Your task to perform on an android device: search for starred emails in the gmail app Image 0: 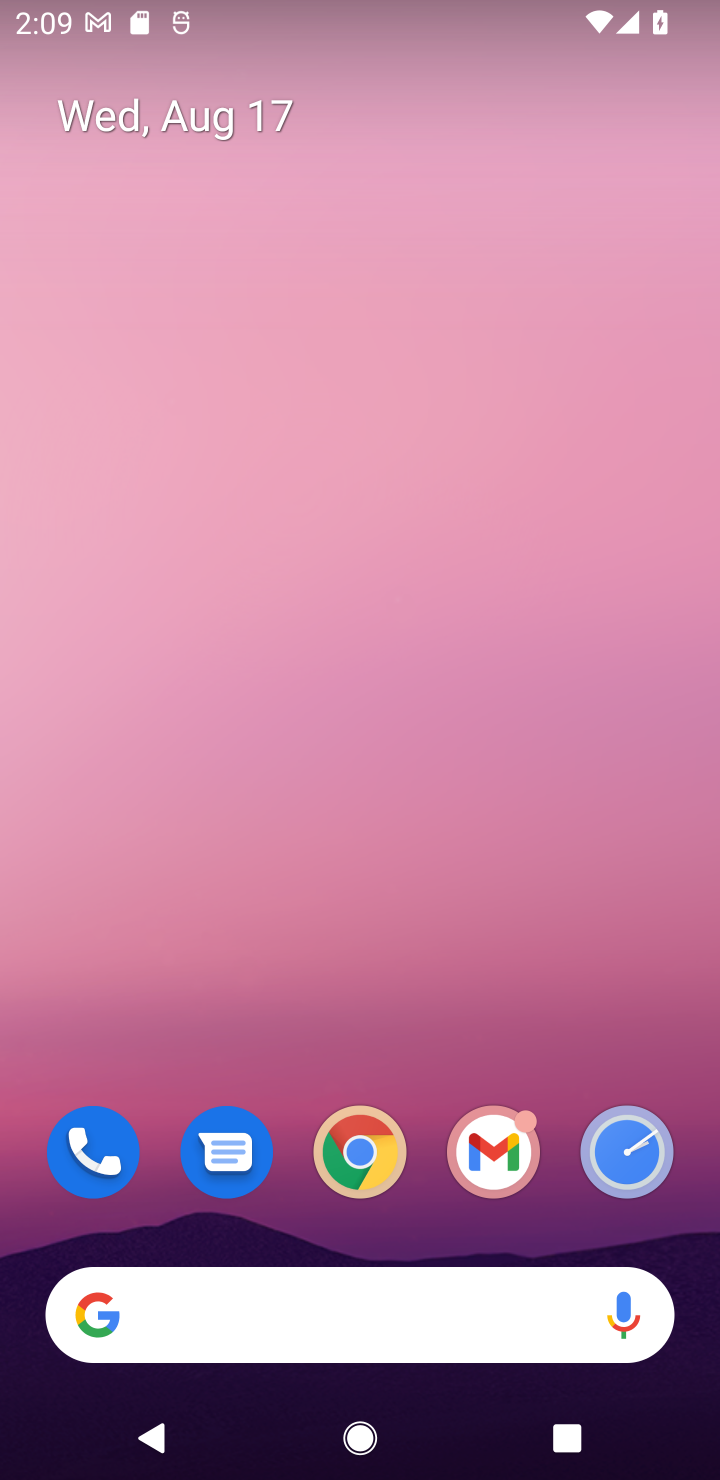
Step 0: drag from (574, 1214) to (260, 39)
Your task to perform on an android device: search for starred emails in the gmail app Image 1: 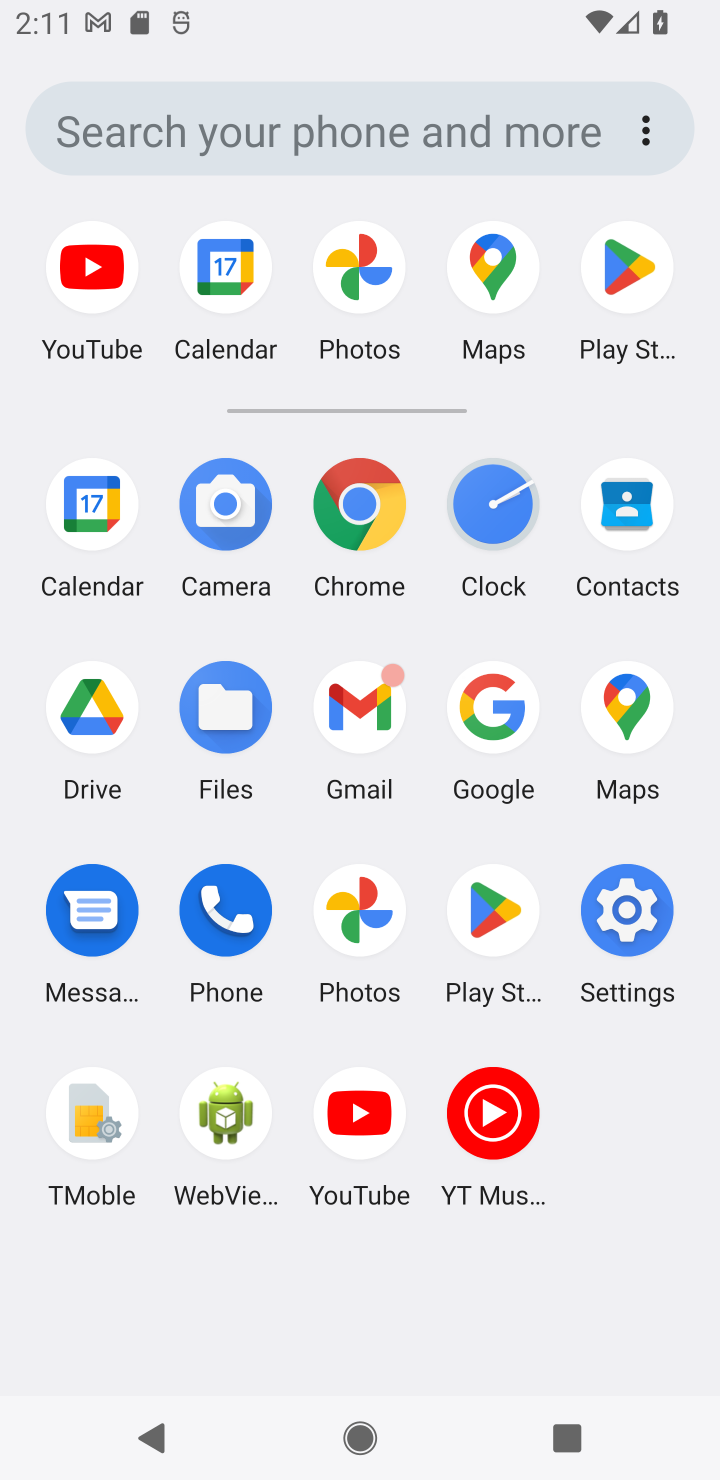
Step 1: click (350, 673)
Your task to perform on an android device: search for starred emails in the gmail app Image 2: 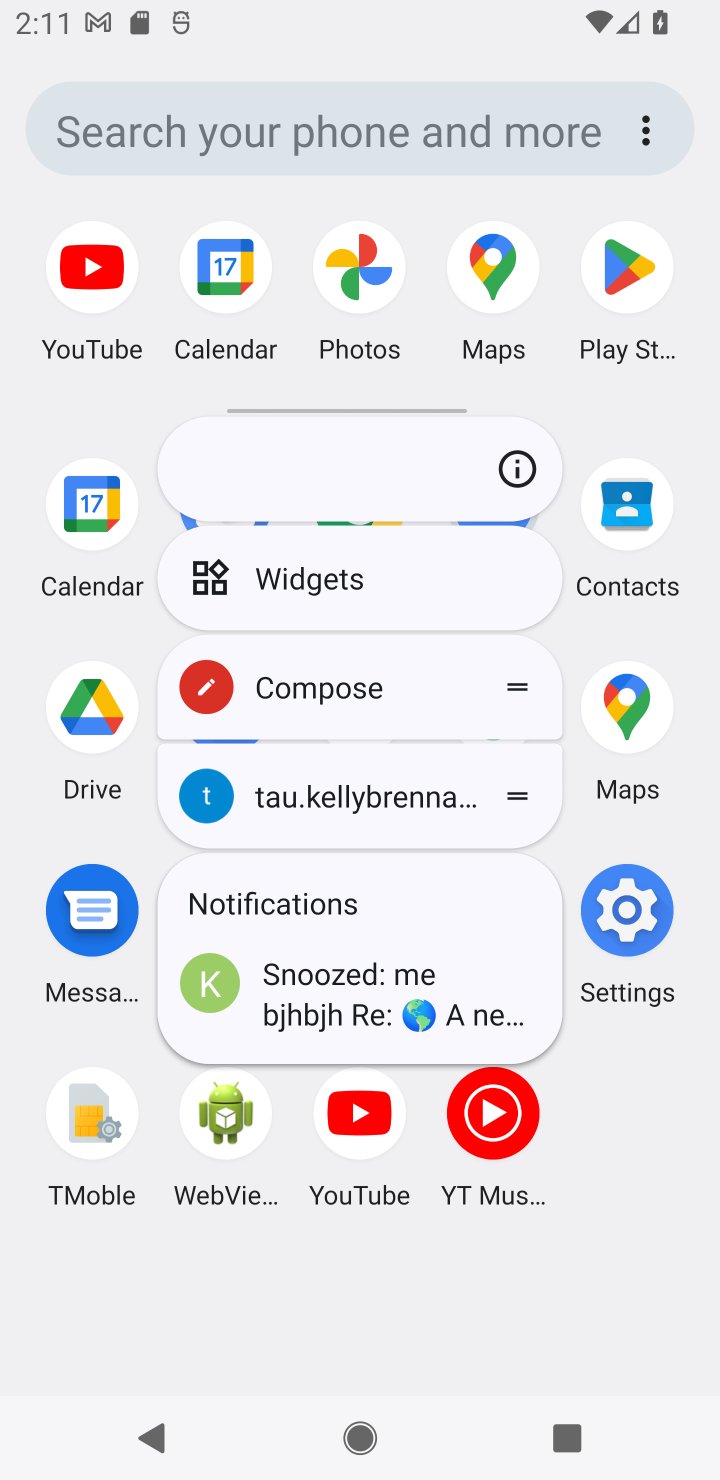
Step 2: click (665, 1219)
Your task to perform on an android device: search for starred emails in the gmail app Image 3: 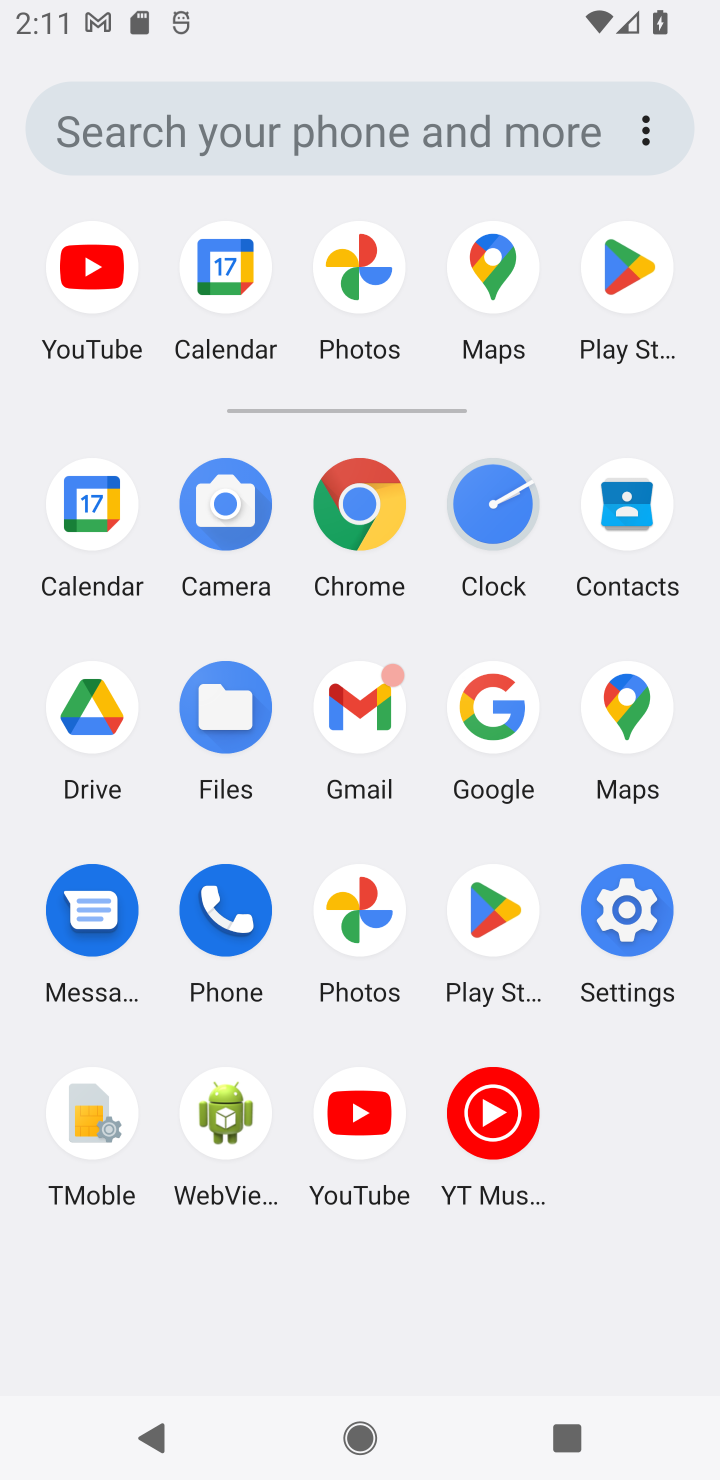
Step 3: click (358, 716)
Your task to perform on an android device: search for starred emails in the gmail app Image 4: 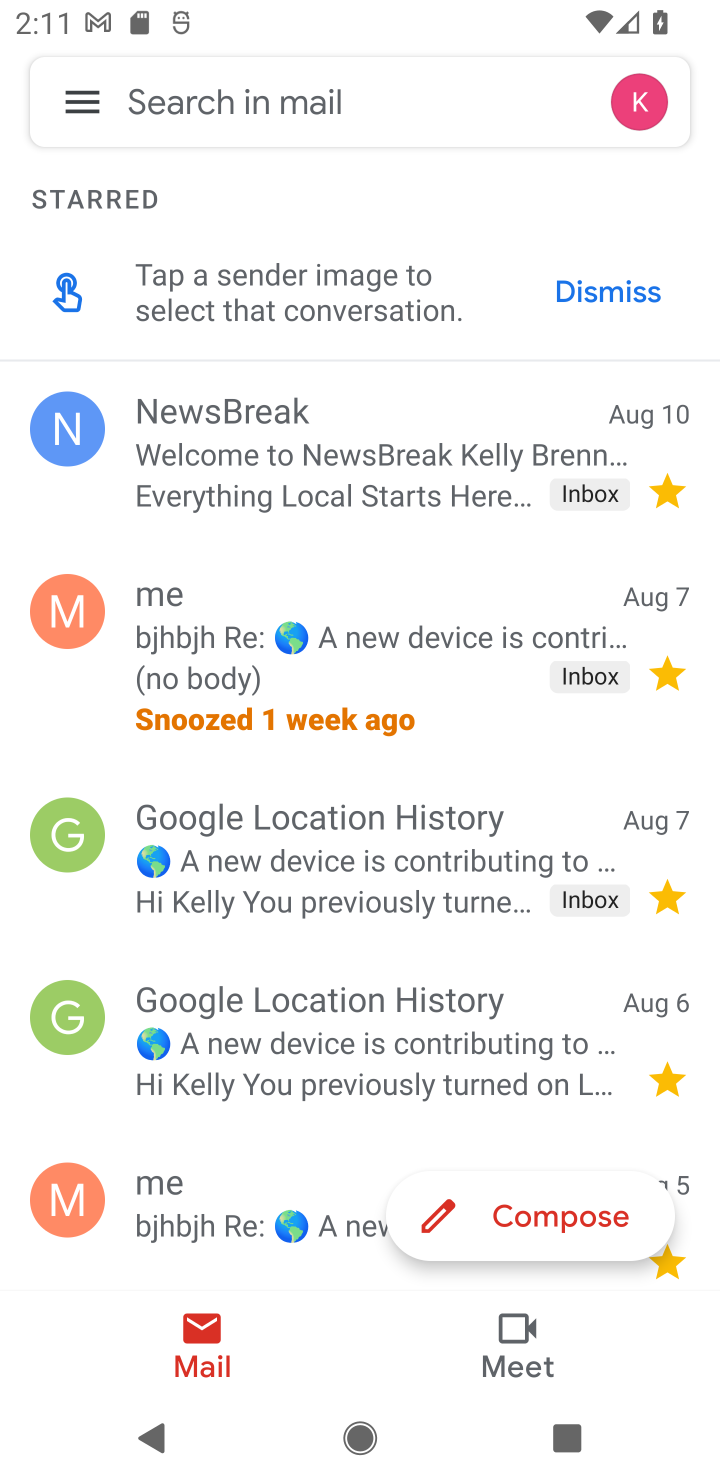
Step 4: click (81, 101)
Your task to perform on an android device: search for starred emails in the gmail app Image 5: 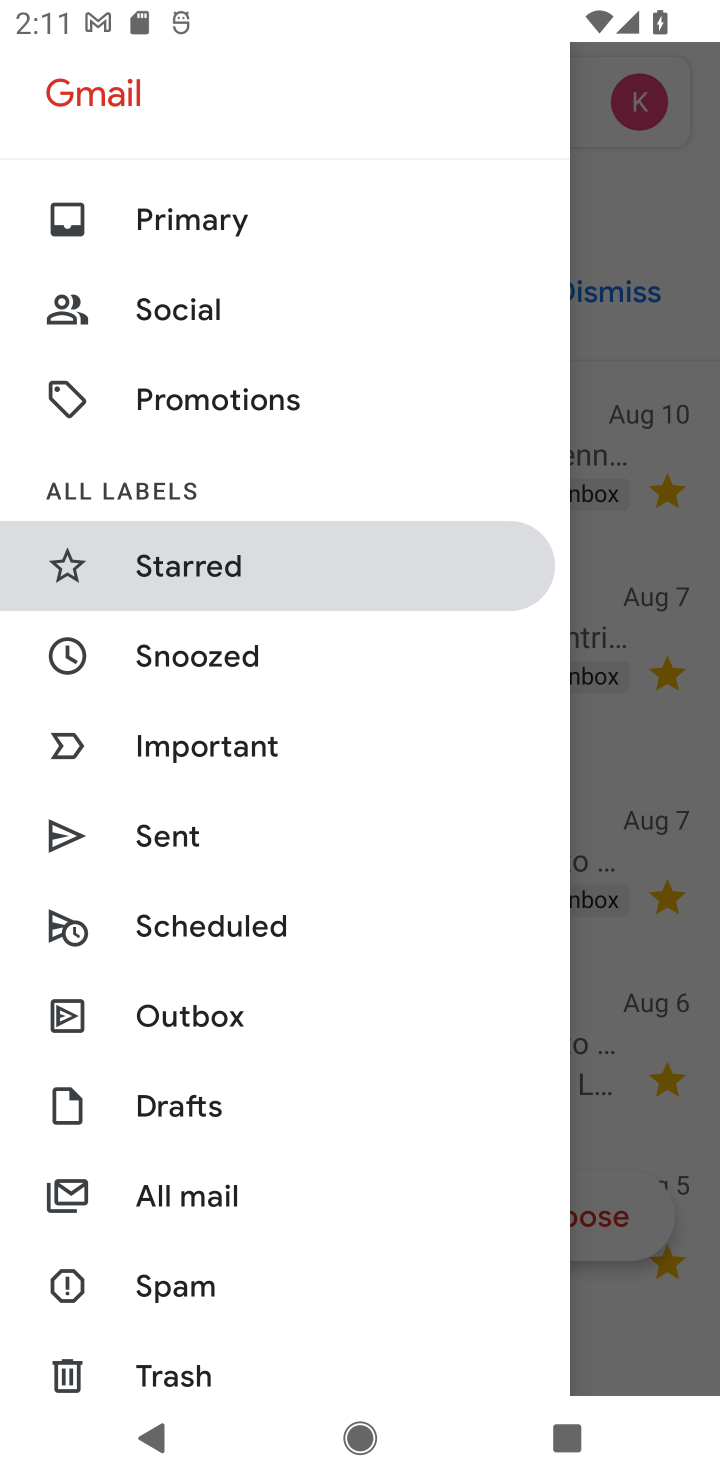
Step 5: click (244, 562)
Your task to perform on an android device: search for starred emails in the gmail app Image 6: 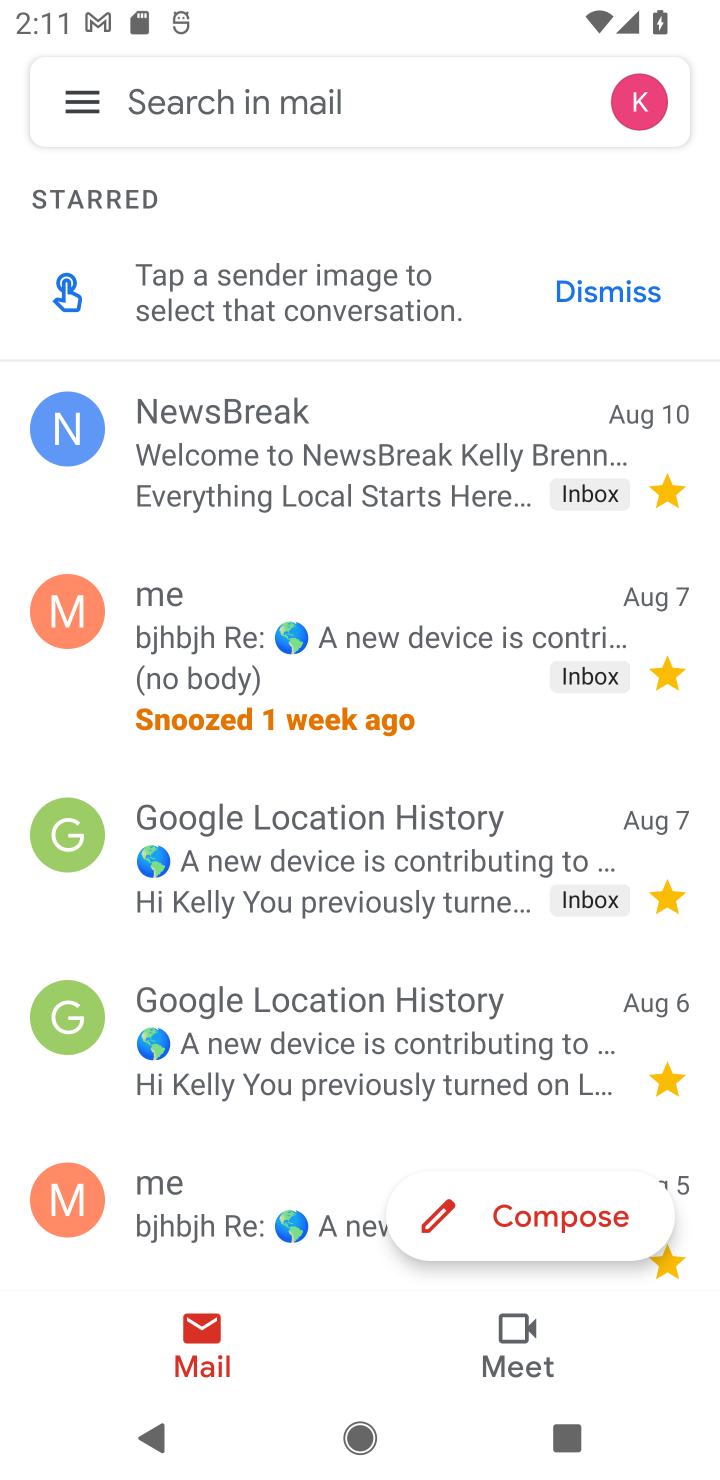
Step 6: task complete